Your task to perform on an android device: Open accessibility settings Image 0: 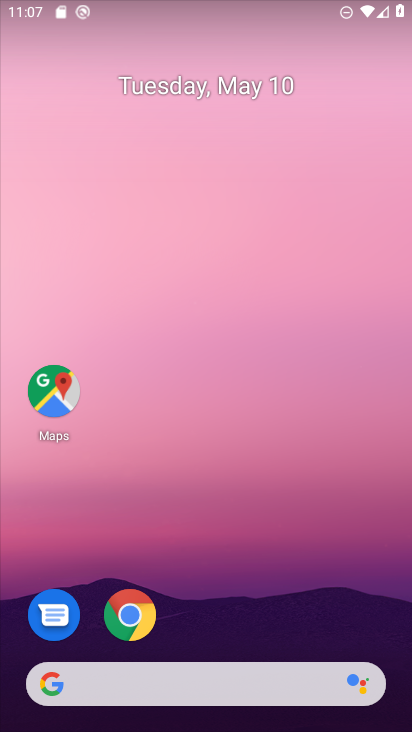
Step 0: drag from (188, 634) to (250, 118)
Your task to perform on an android device: Open accessibility settings Image 1: 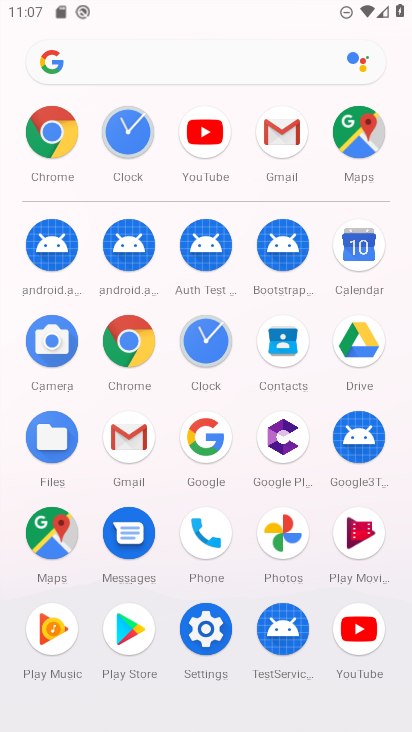
Step 1: click (207, 634)
Your task to perform on an android device: Open accessibility settings Image 2: 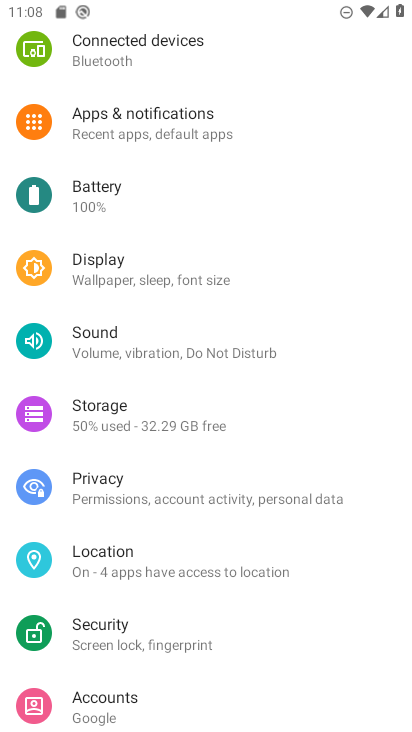
Step 2: drag from (186, 631) to (232, 250)
Your task to perform on an android device: Open accessibility settings Image 3: 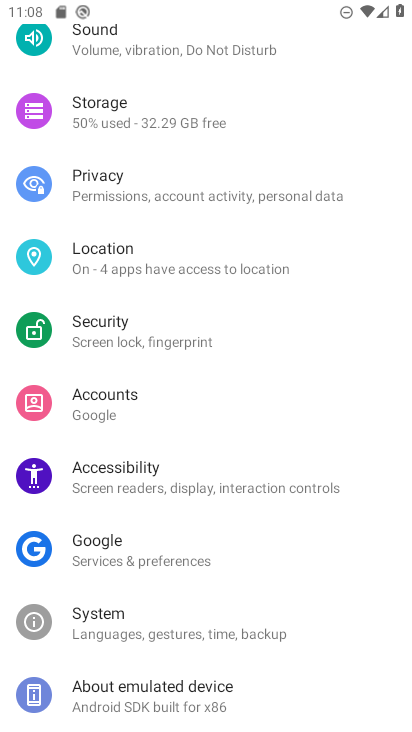
Step 3: click (181, 476)
Your task to perform on an android device: Open accessibility settings Image 4: 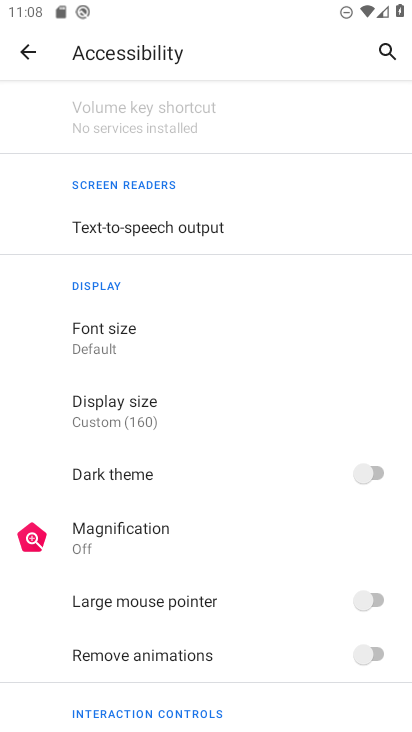
Step 4: task complete